Your task to perform on an android device: Show me popular videos on Youtube Image 0: 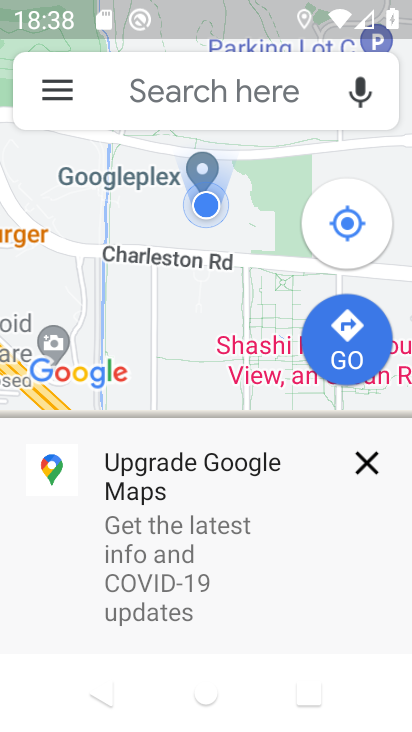
Step 0: press home button
Your task to perform on an android device: Show me popular videos on Youtube Image 1: 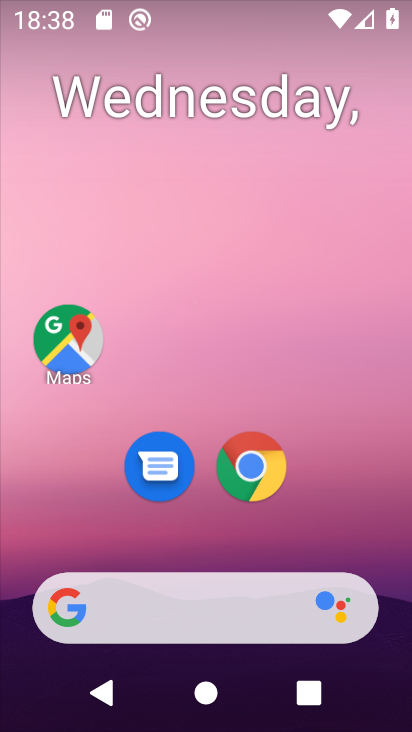
Step 1: drag from (326, 505) to (229, 60)
Your task to perform on an android device: Show me popular videos on Youtube Image 2: 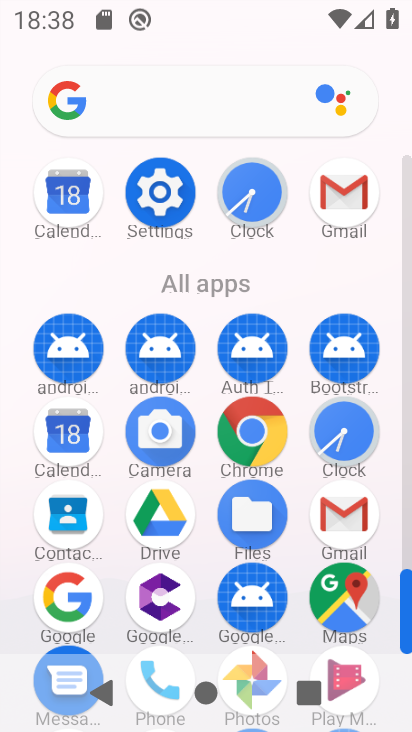
Step 2: drag from (206, 649) to (141, 292)
Your task to perform on an android device: Show me popular videos on Youtube Image 3: 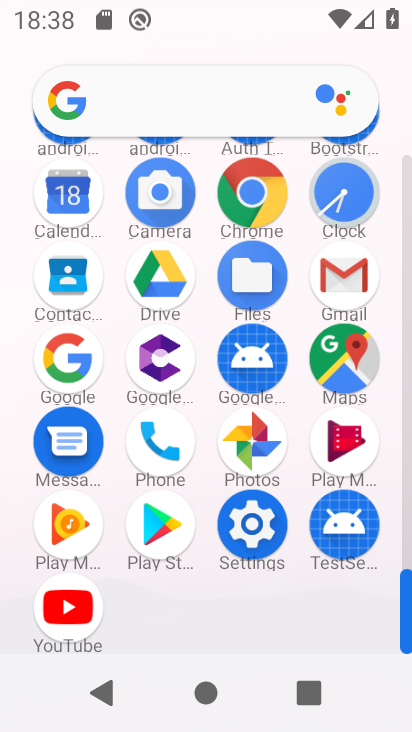
Step 3: click (64, 612)
Your task to perform on an android device: Show me popular videos on Youtube Image 4: 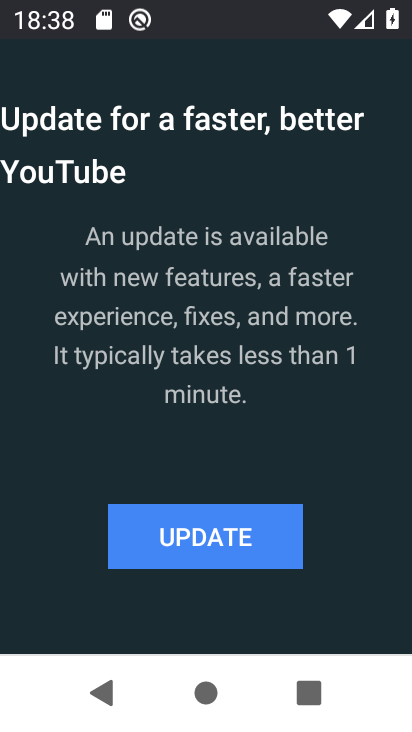
Step 4: click (197, 532)
Your task to perform on an android device: Show me popular videos on Youtube Image 5: 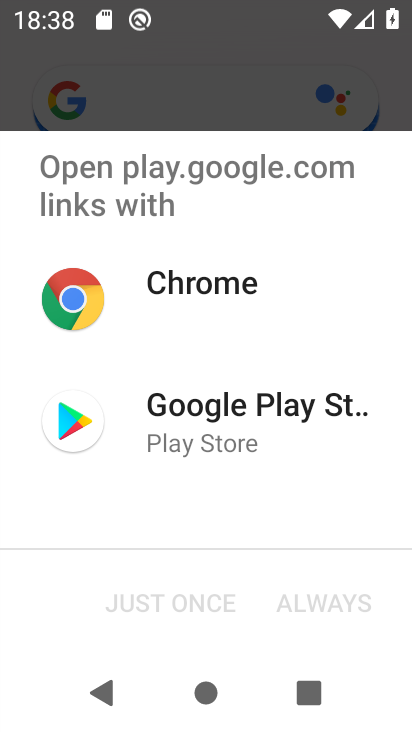
Step 5: click (199, 410)
Your task to perform on an android device: Show me popular videos on Youtube Image 6: 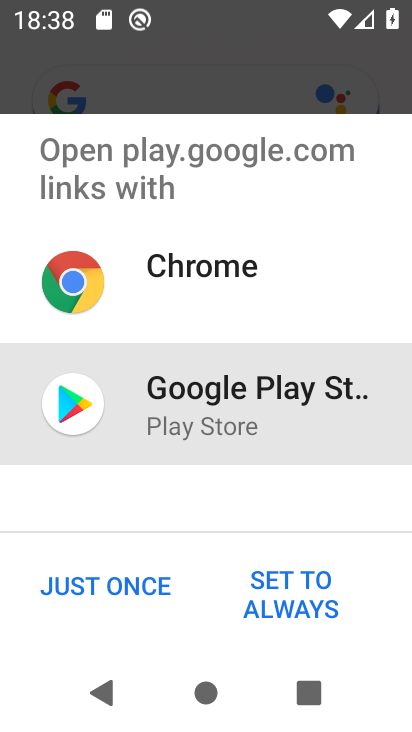
Step 6: click (127, 576)
Your task to perform on an android device: Show me popular videos on Youtube Image 7: 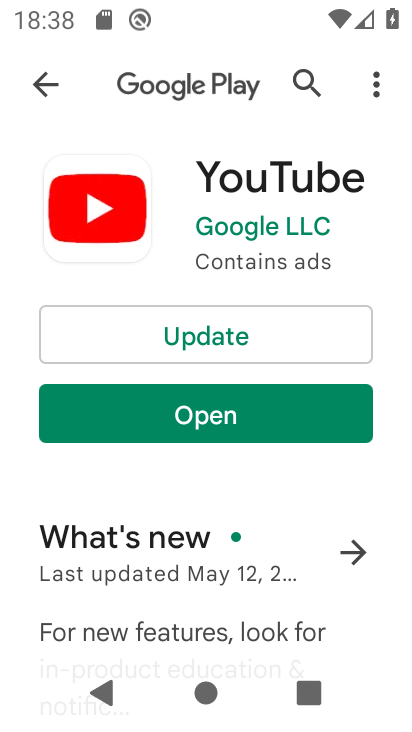
Step 7: click (220, 338)
Your task to perform on an android device: Show me popular videos on Youtube Image 8: 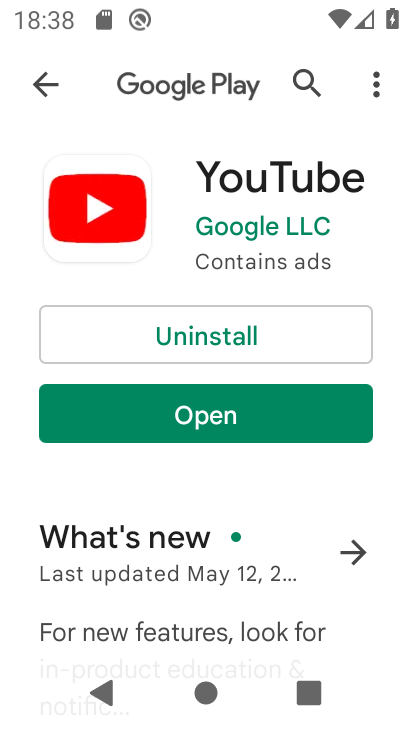
Step 8: click (206, 418)
Your task to perform on an android device: Show me popular videos on Youtube Image 9: 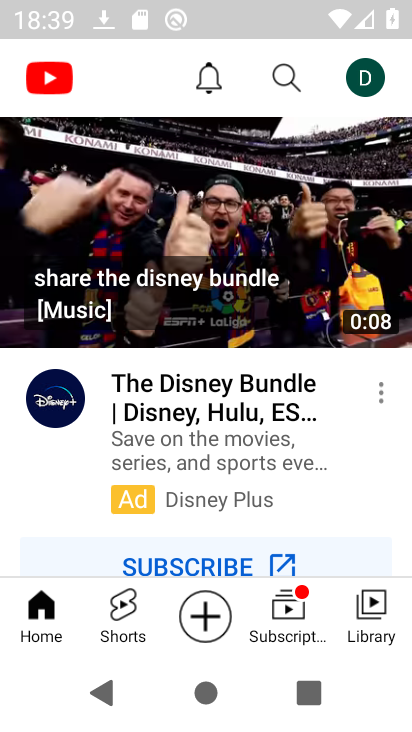
Step 9: click (115, 598)
Your task to perform on an android device: Show me popular videos on Youtube Image 10: 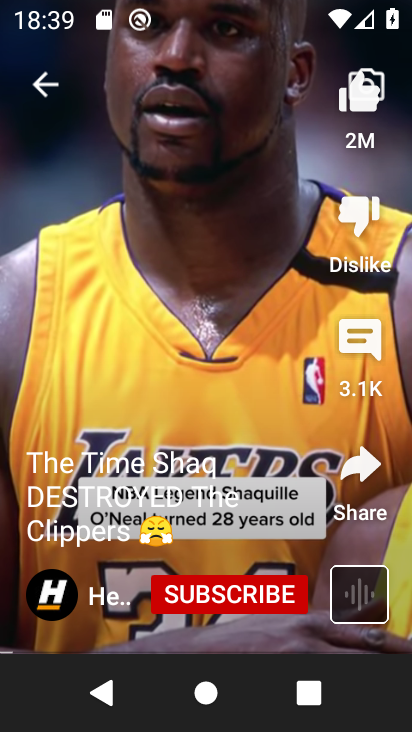
Step 10: task complete